Your task to perform on an android device: toggle airplane mode Image 0: 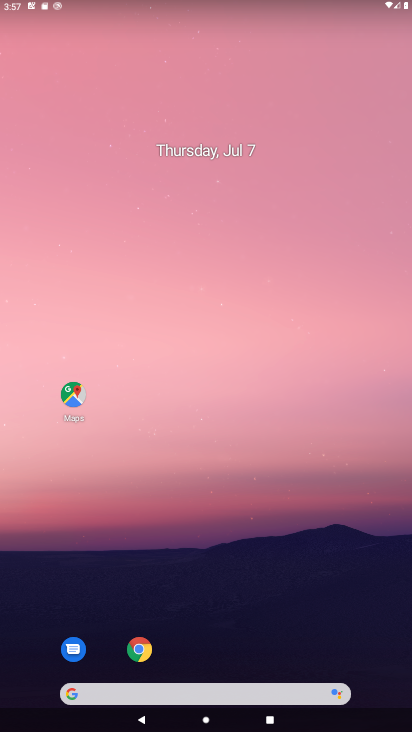
Step 0: drag from (385, 673) to (310, 150)
Your task to perform on an android device: toggle airplane mode Image 1: 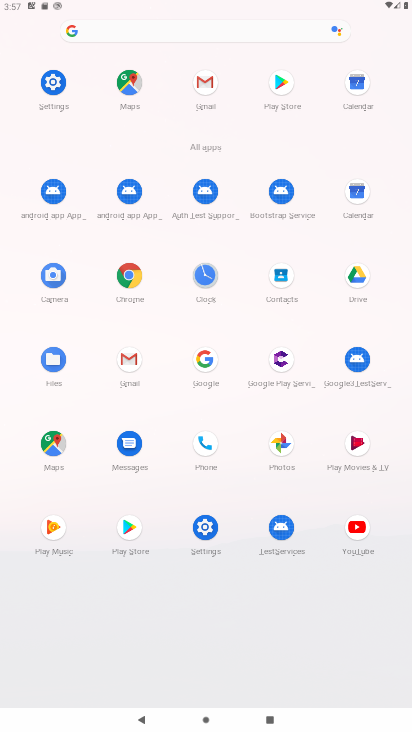
Step 1: click (203, 525)
Your task to perform on an android device: toggle airplane mode Image 2: 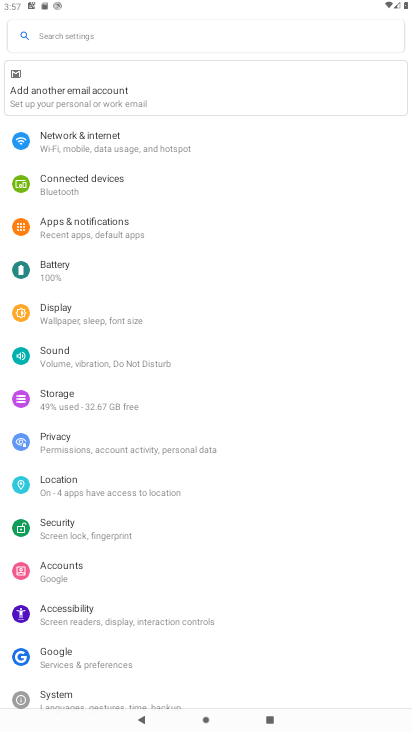
Step 2: click (91, 141)
Your task to perform on an android device: toggle airplane mode Image 3: 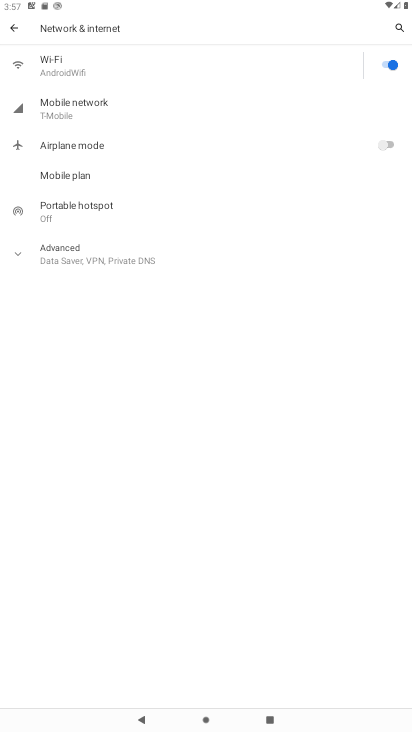
Step 3: click (393, 142)
Your task to perform on an android device: toggle airplane mode Image 4: 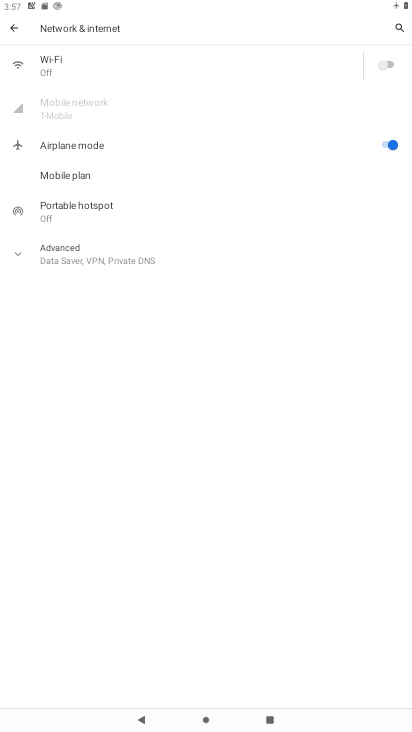
Step 4: task complete